Your task to perform on an android device: turn off wifi Image 0: 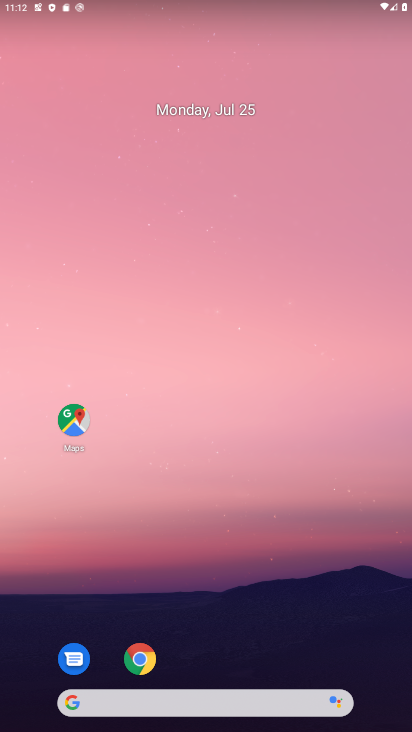
Step 0: drag from (231, 651) to (263, 37)
Your task to perform on an android device: turn off wifi Image 1: 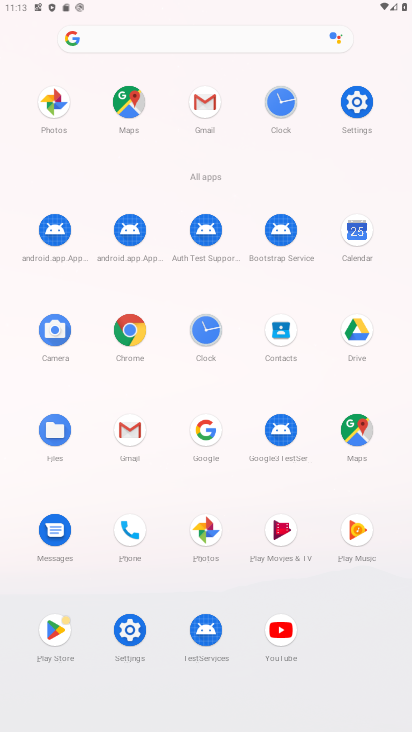
Step 1: click (369, 123)
Your task to perform on an android device: turn off wifi Image 2: 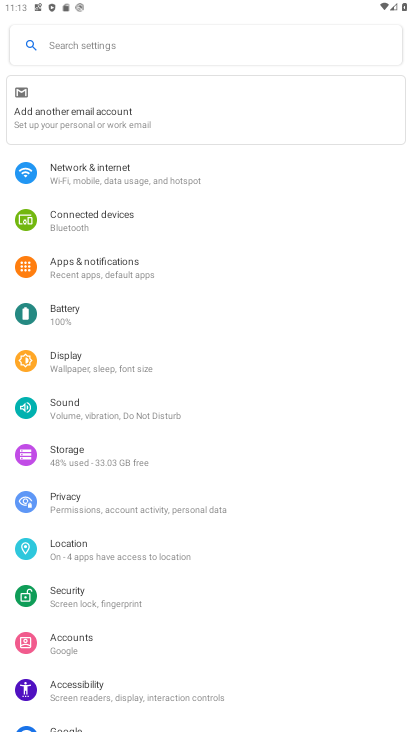
Step 2: click (211, 173)
Your task to perform on an android device: turn off wifi Image 3: 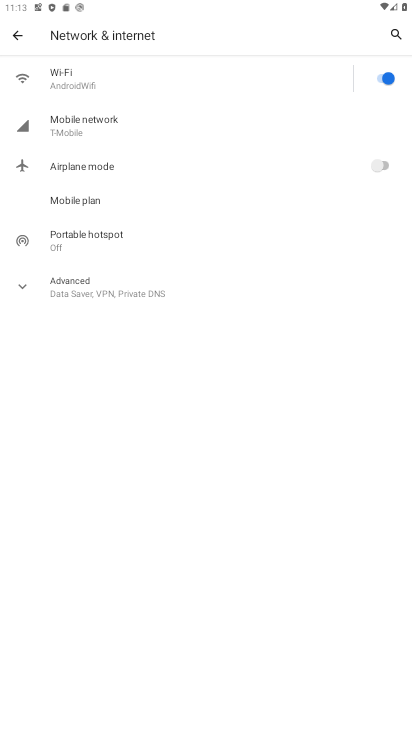
Step 3: click (382, 78)
Your task to perform on an android device: turn off wifi Image 4: 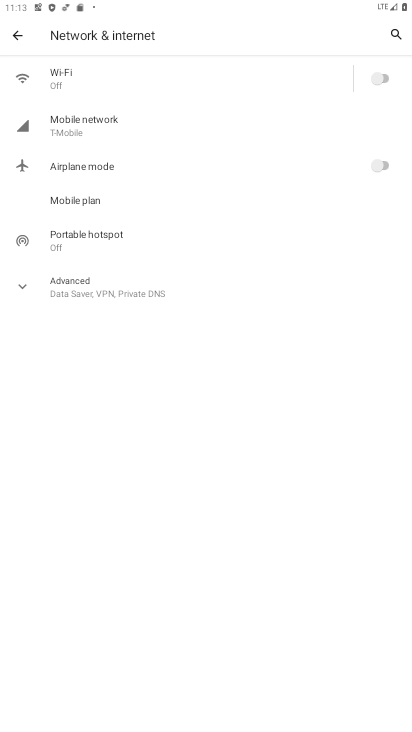
Step 4: task complete